Your task to perform on an android device: turn off sleep mode Image 0: 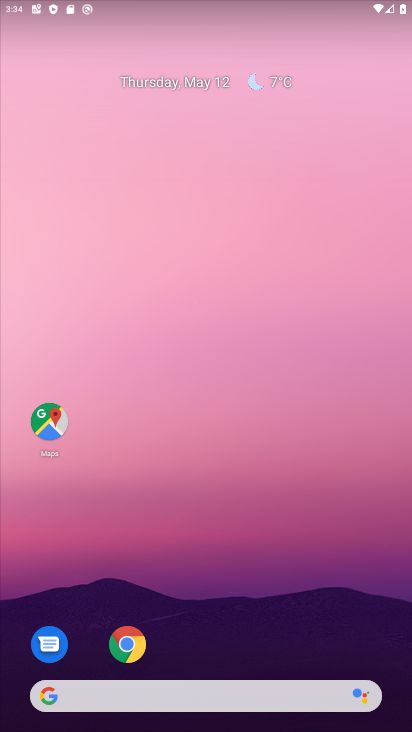
Step 0: press home button
Your task to perform on an android device: turn off sleep mode Image 1: 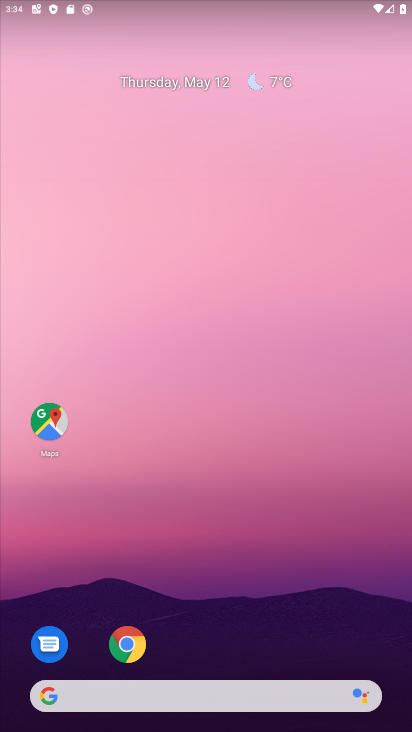
Step 1: drag from (213, 653) to (278, 154)
Your task to perform on an android device: turn off sleep mode Image 2: 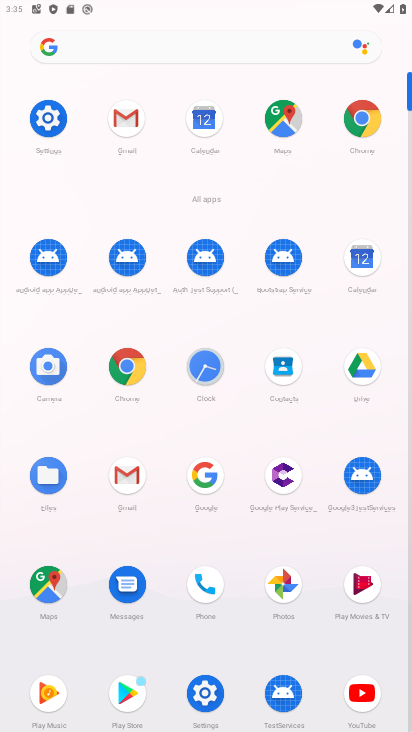
Step 2: click (50, 117)
Your task to perform on an android device: turn off sleep mode Image 3: 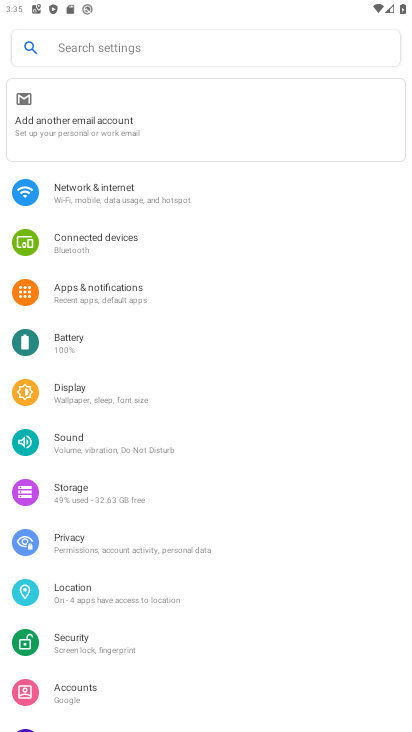
Step 3: click (91, 399)
Your task to perform on an android device: turn off sleep mode Image 4: 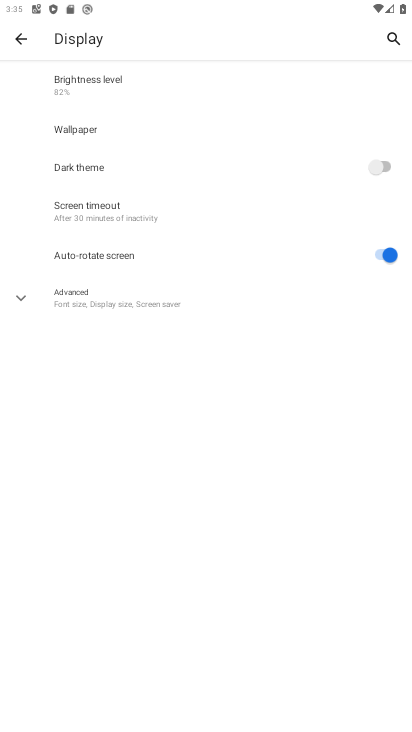
Step 4: click (35, 294)
Your task to perform on an android device: turn off sleep mode Image 5: 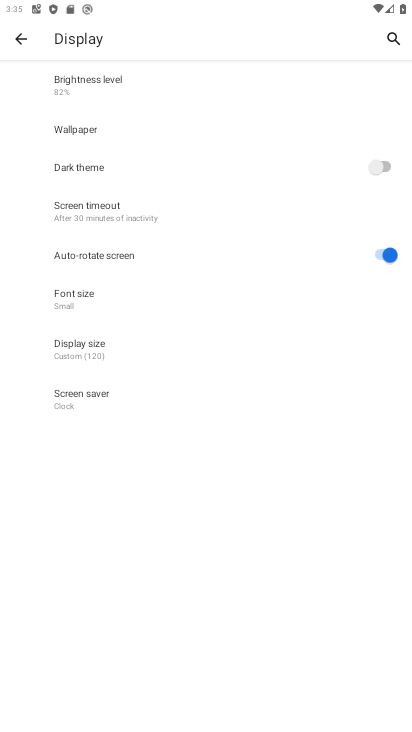
Step 5: task complete